Your task to perform on an android device: Open settings on Google Maps Image 0: 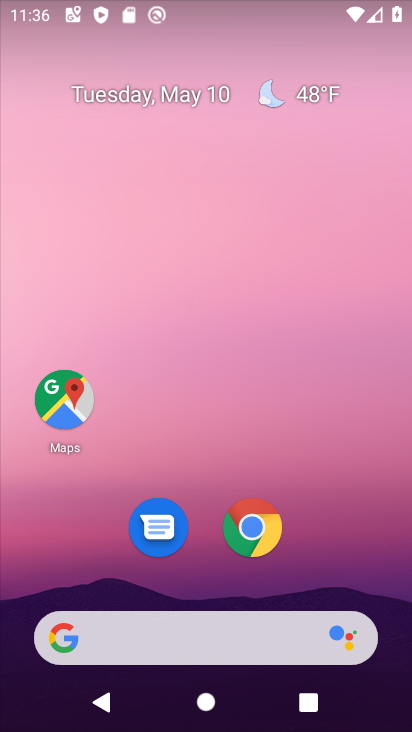
Step 0: drag from (220, 730) to (191, 111)
Your task to perform on an android device: Open settings on Google Maps Image 1: 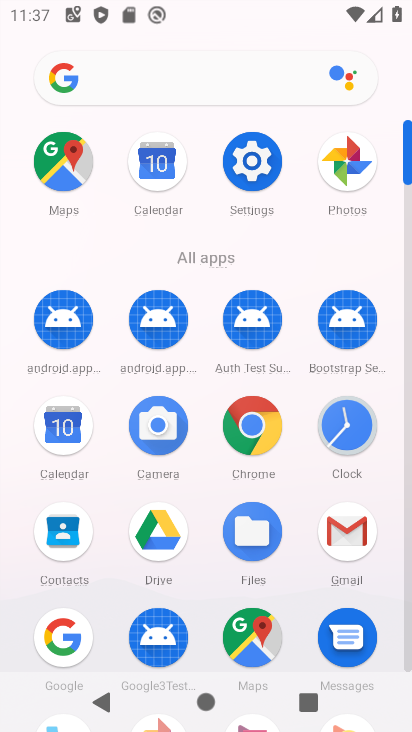
Step 1: click (58, 163)
Your task to perform on an android device: Open settings on Google Maps Image 2: 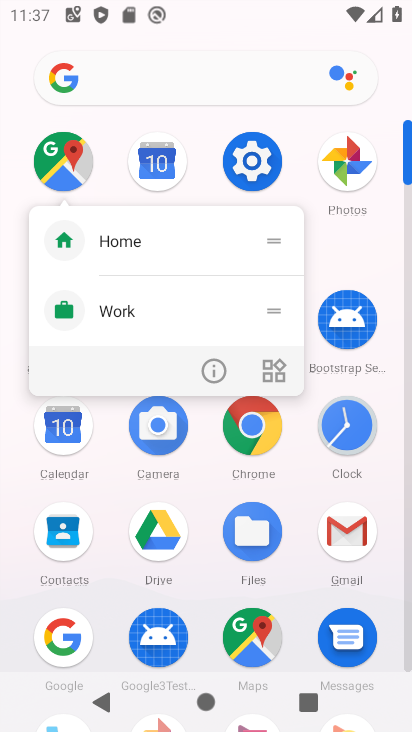
Step 2: click (57, 163)
Your task to perform on an android device: Open settings on Google Maps Image 3: 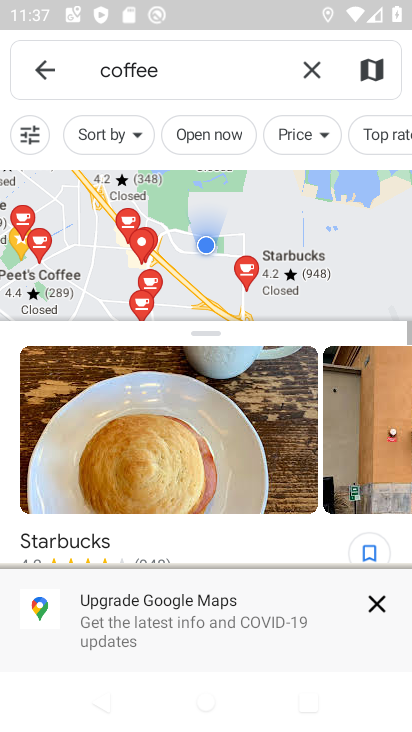
Step 3: click (48, 66)
Your task to perform on an android device: Open settings on Google Maps Image 4: 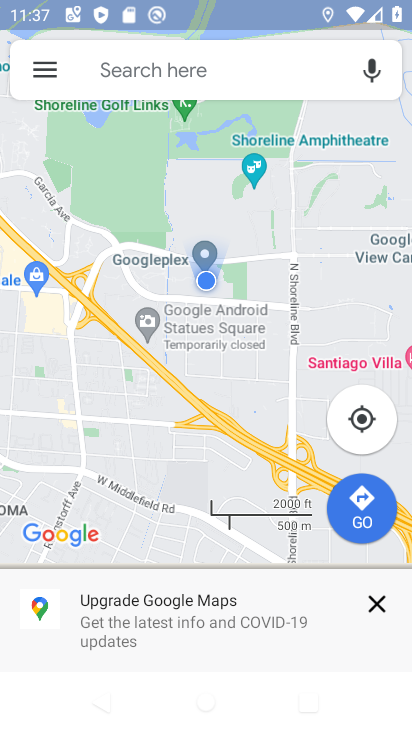
Step 4: click (44, 72)
Your task to perform on an android device: Open settings on Google Maps Image 5: 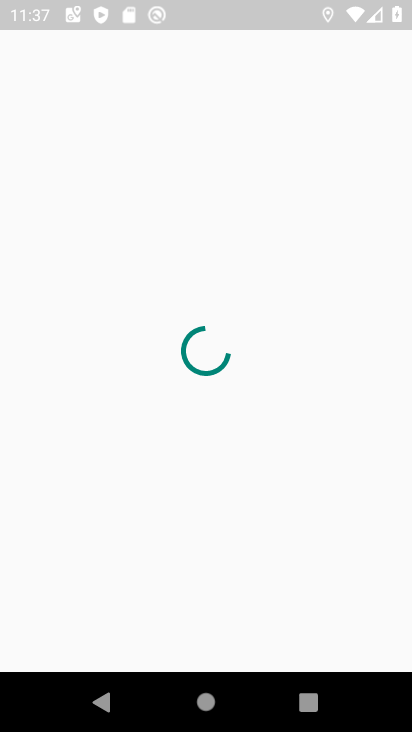
Step 5: drag from (142, 619) to (136, 369)
Your task to perform on an android device: Open settings on Google Maps Image 6: 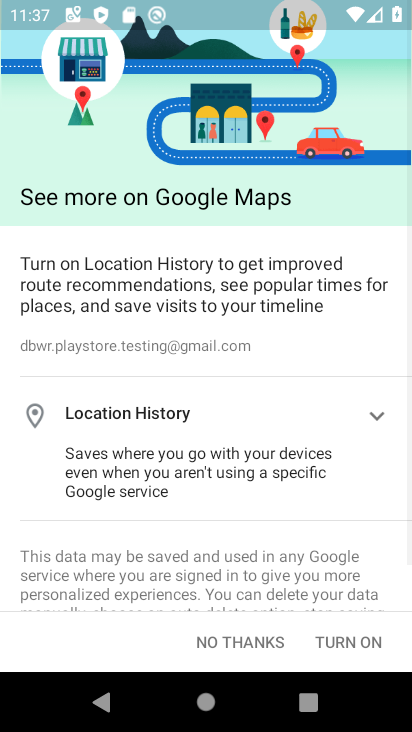
Step 6: click (248, 633)
Your task to perform on an android device: Open settings on Google Maps Image 7: 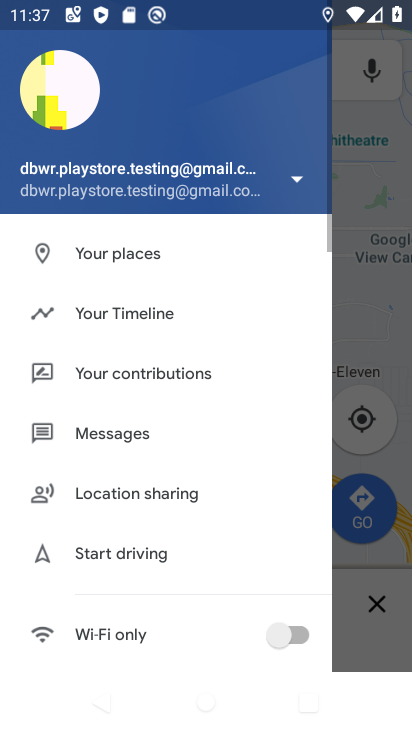
Step 7: drag from (149, 628) to (162, 220)
Your task to perform on an android device: Open settings on Google Maps Image 8: 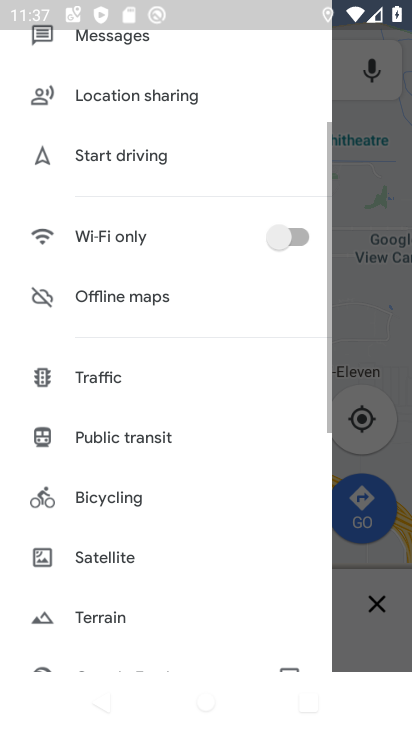
Step 8: drag from (128, 648) to (164, 204)
Your task to perform on an android device: Open settings on Google Maps Image 9: 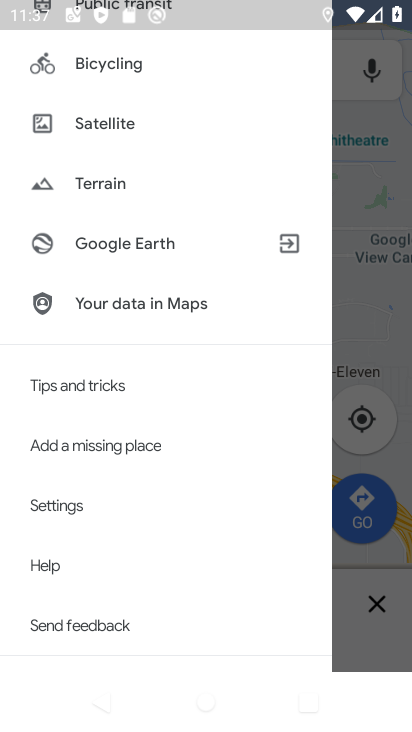
Step 9: drag from (117, 641) to (142, 183)
Your task to perform on an android device: Open settings on Google Maps Image 10: 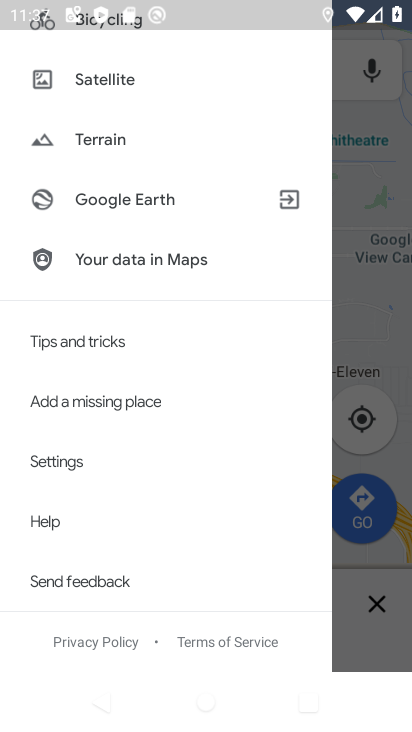
Step 10: click (63, 459)
Your task to perform on an android device: Open settings on Google Maps Image 11: 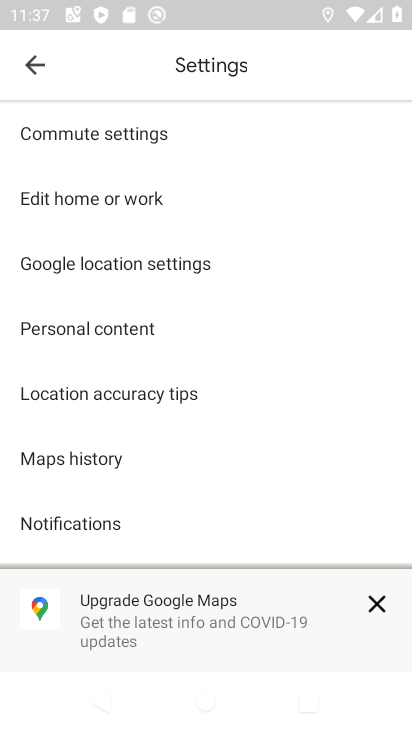
Step 11: task complete